Your task to perform on an android device: open app "Microsoft Authenticator" Image 0: 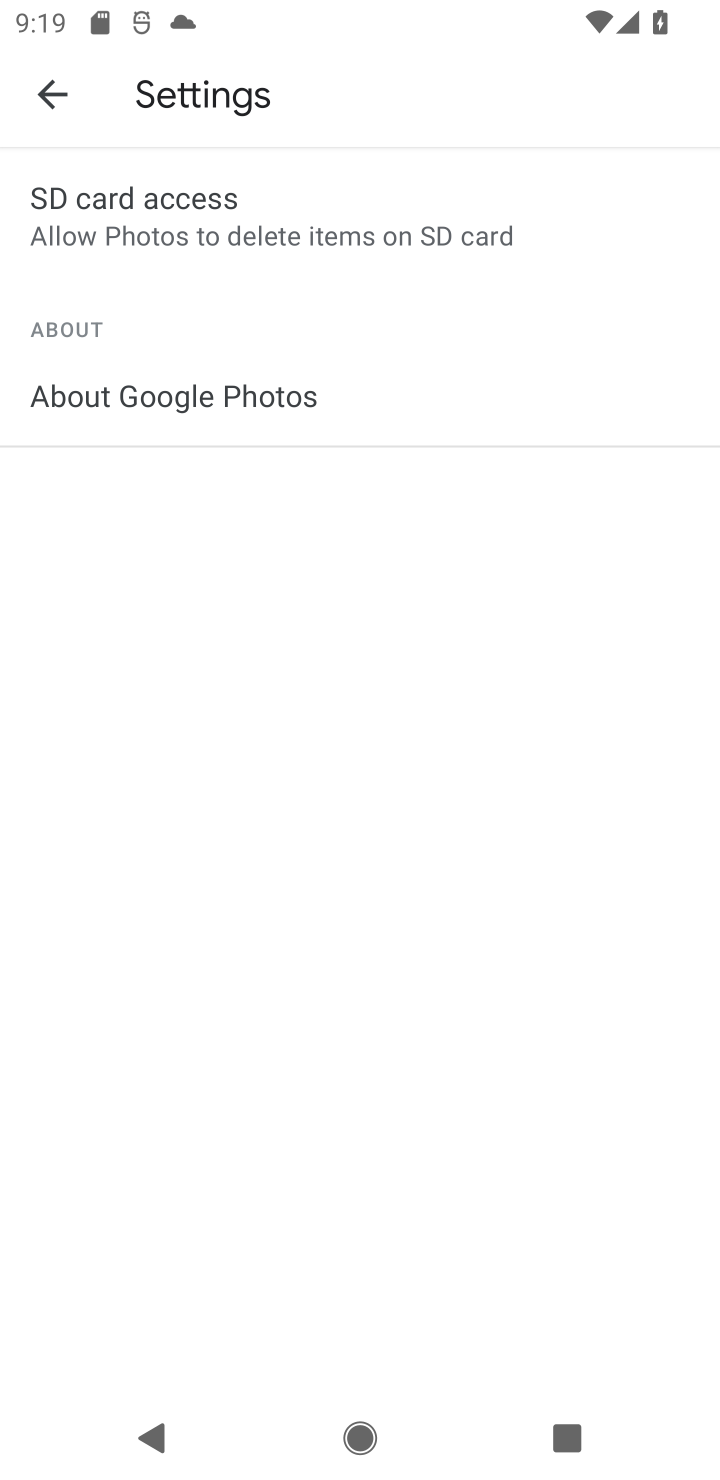
Step 0: press home button
Your task to perform on an android device: open app "Microsoft Authenticator" Image 1: 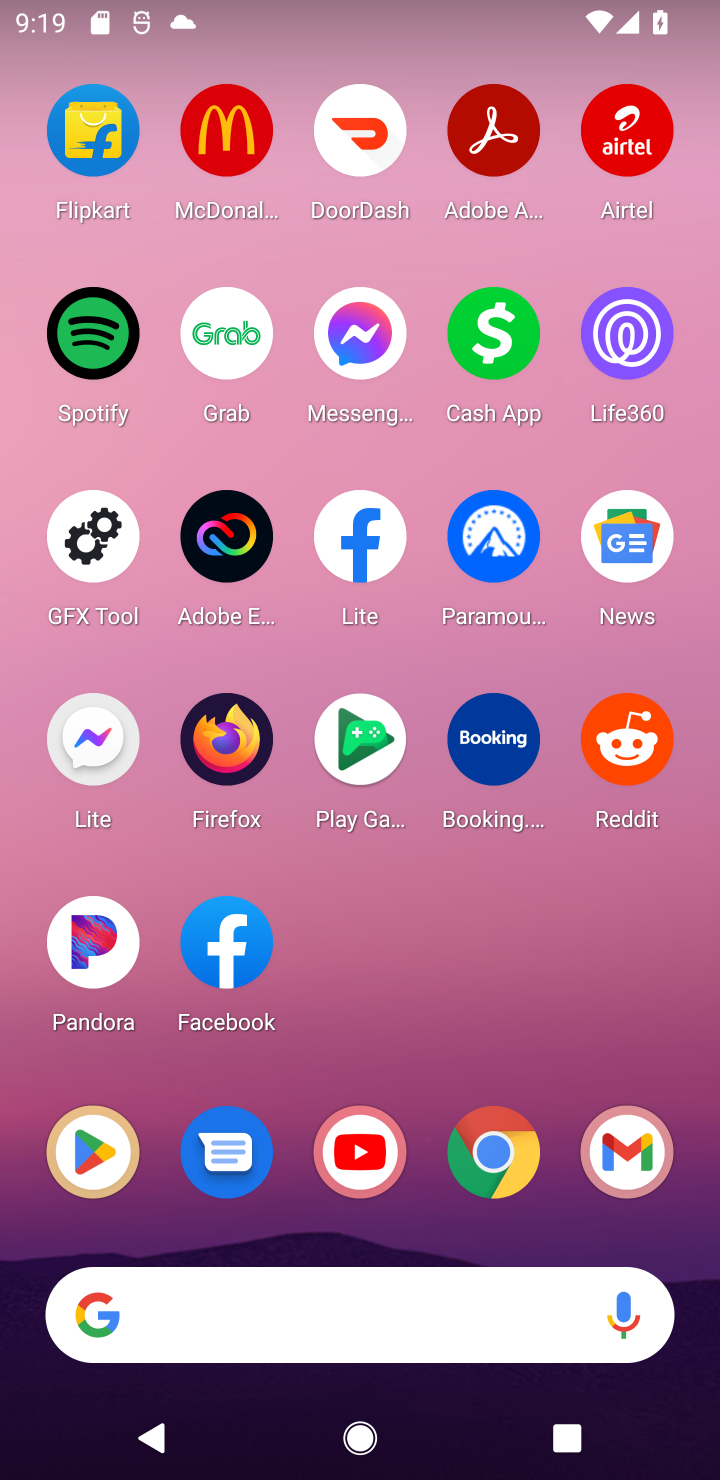
Step 1: drag from (544, 1051) to (438, 1149)
Your task to perform on an android device: open app "Microsoft Authenticator" Image 2: 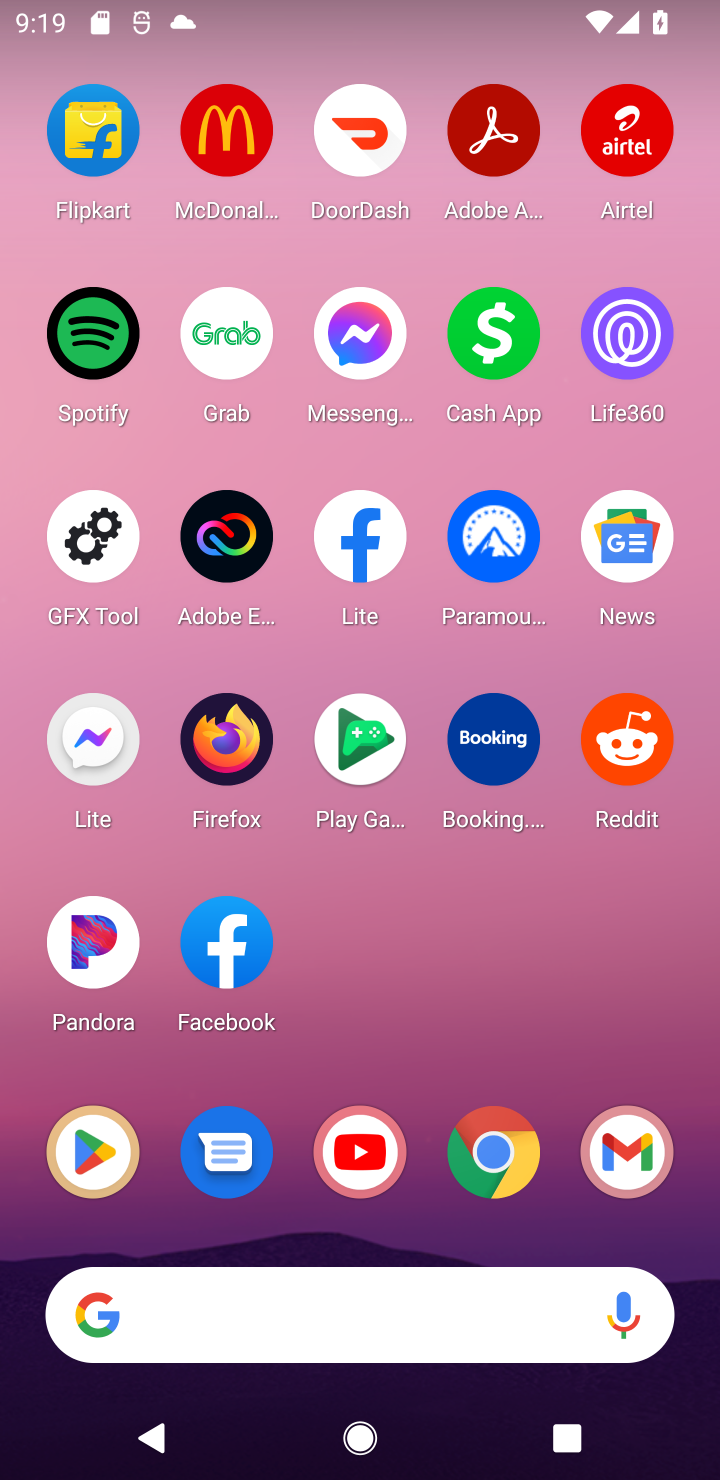
Step 2: click (54, 1139)
Your task to perform on an android device: open app "Microsoft Authenticator" Image 3: 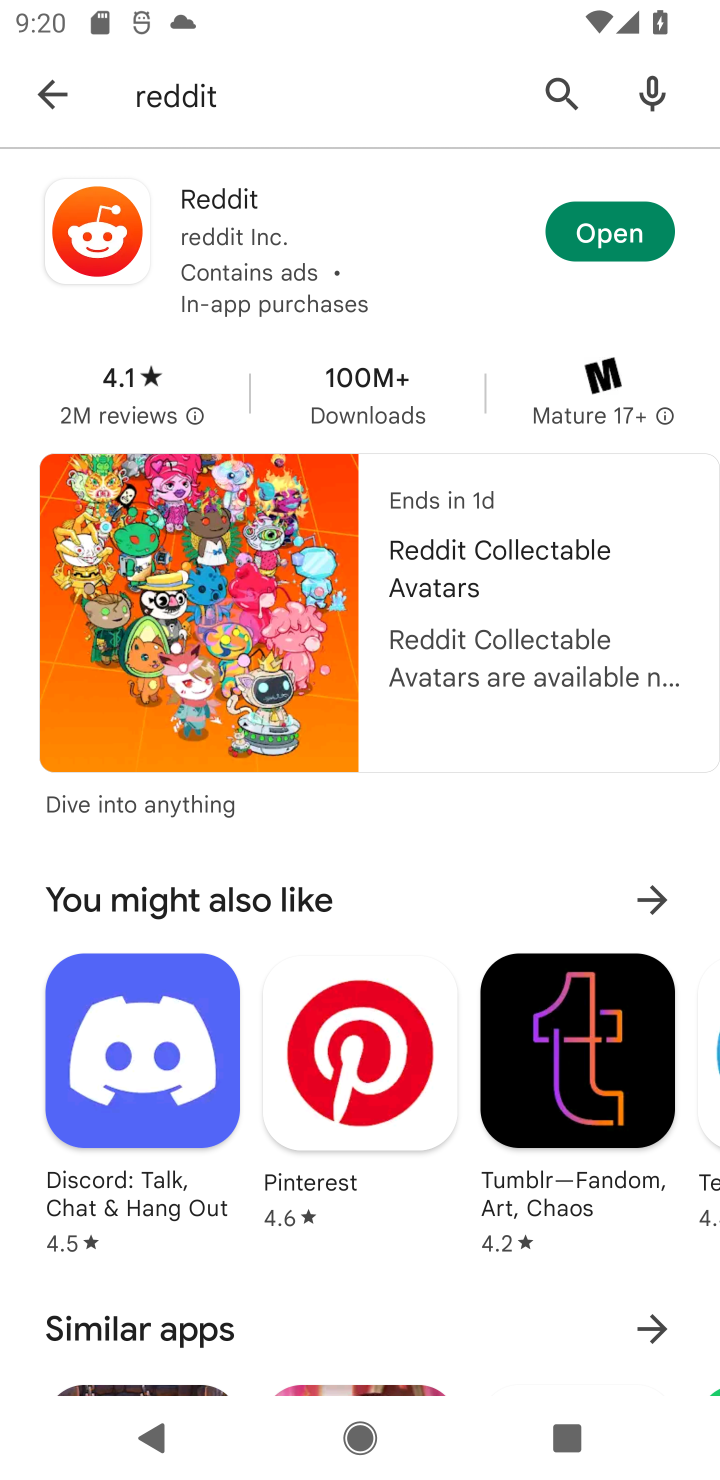
Step 3: click (45, 105)
Your task to perform on an android device: open app "Microsoft Authenticator" Image 4: 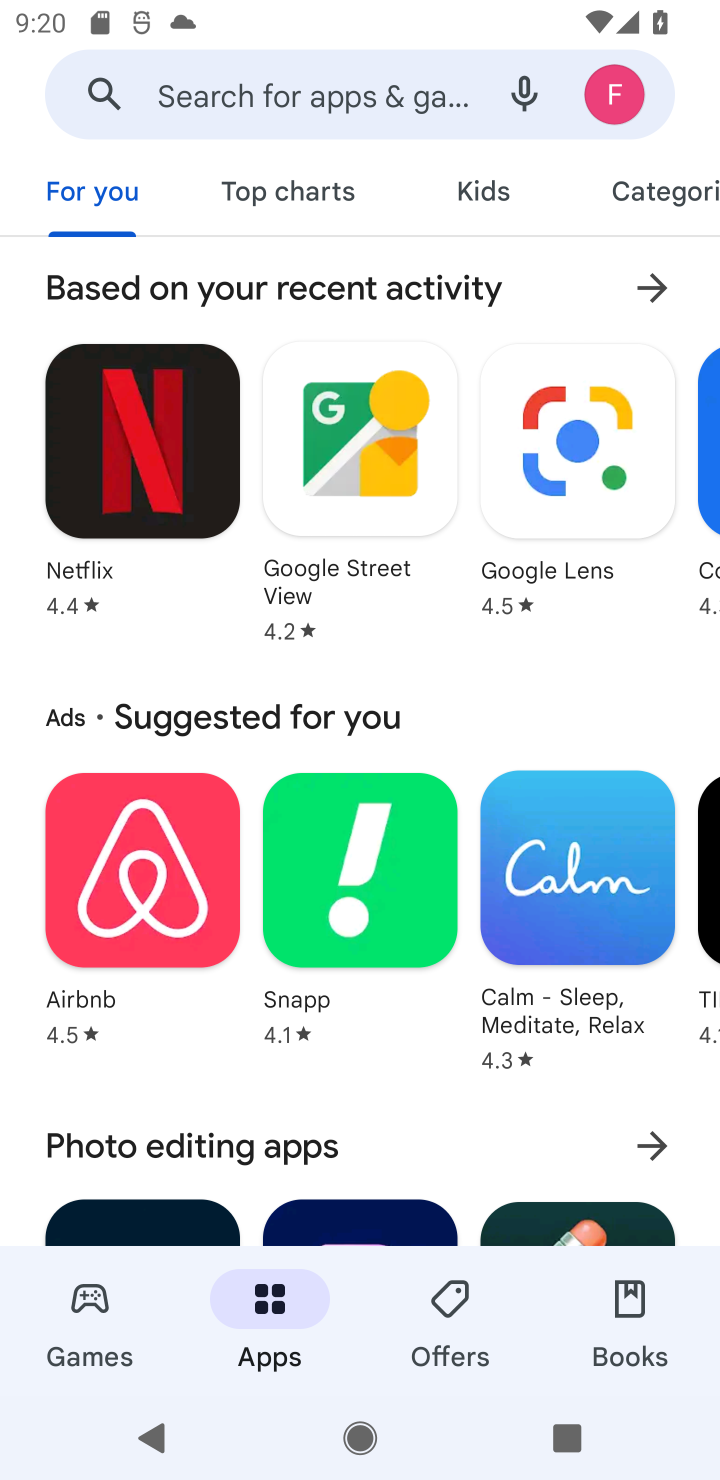
Step 4: click (328, 95)
Your task to perform on an android device: open app "Microsoft Authenticator" Image 5: 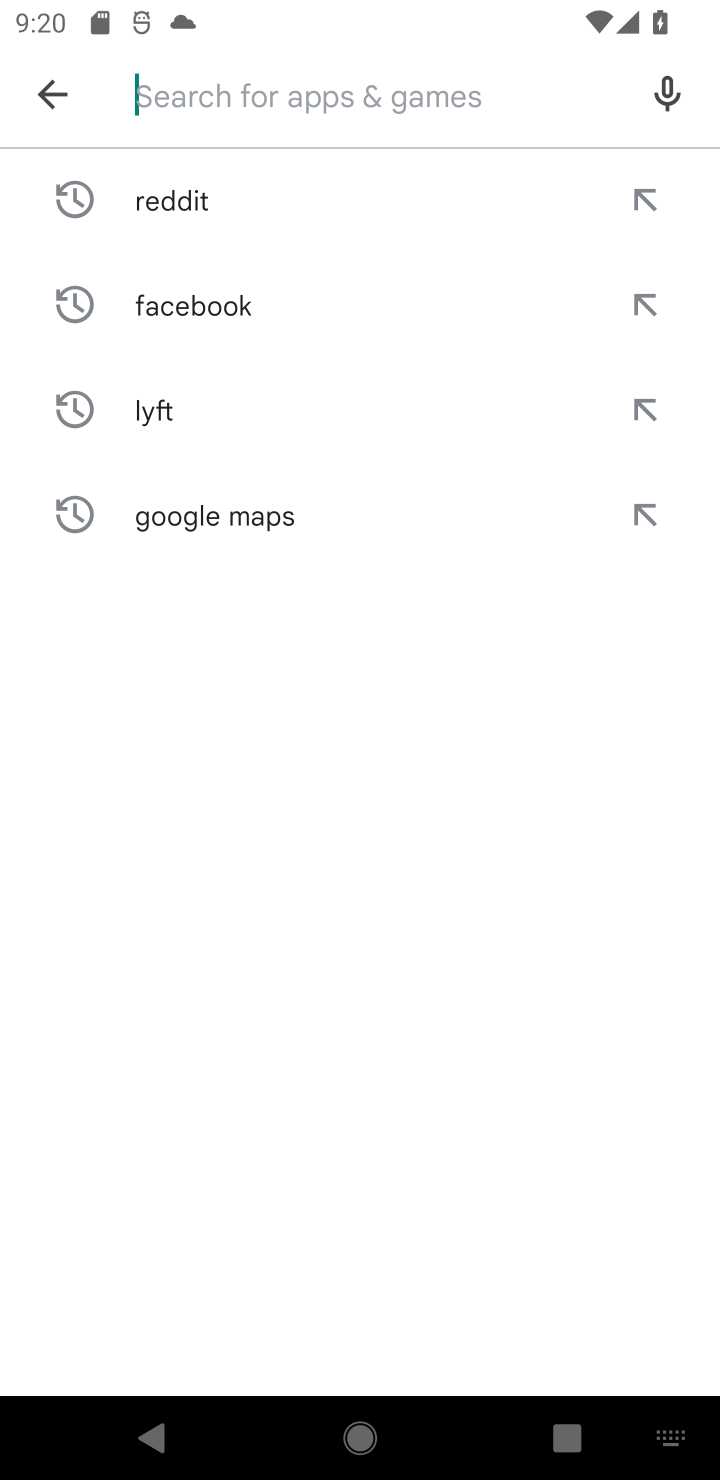
Step 5: type "Microsoft Authenticator"
Your task to perform on an android device: open app "Microsoft Authenticator" Image 6: 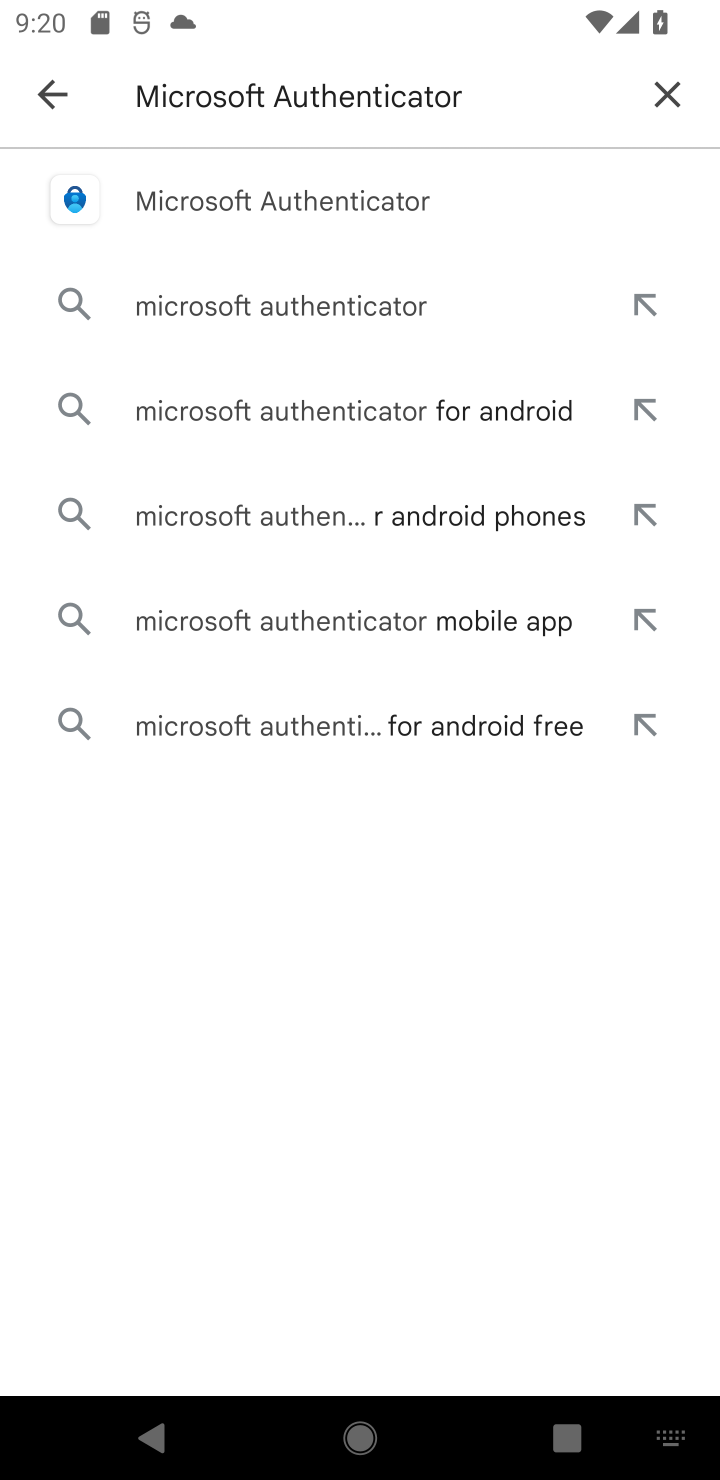
Step 6: click (325, 198)
Your task to perform on an android device: open app "Microsoft Authenticator" Image 7: 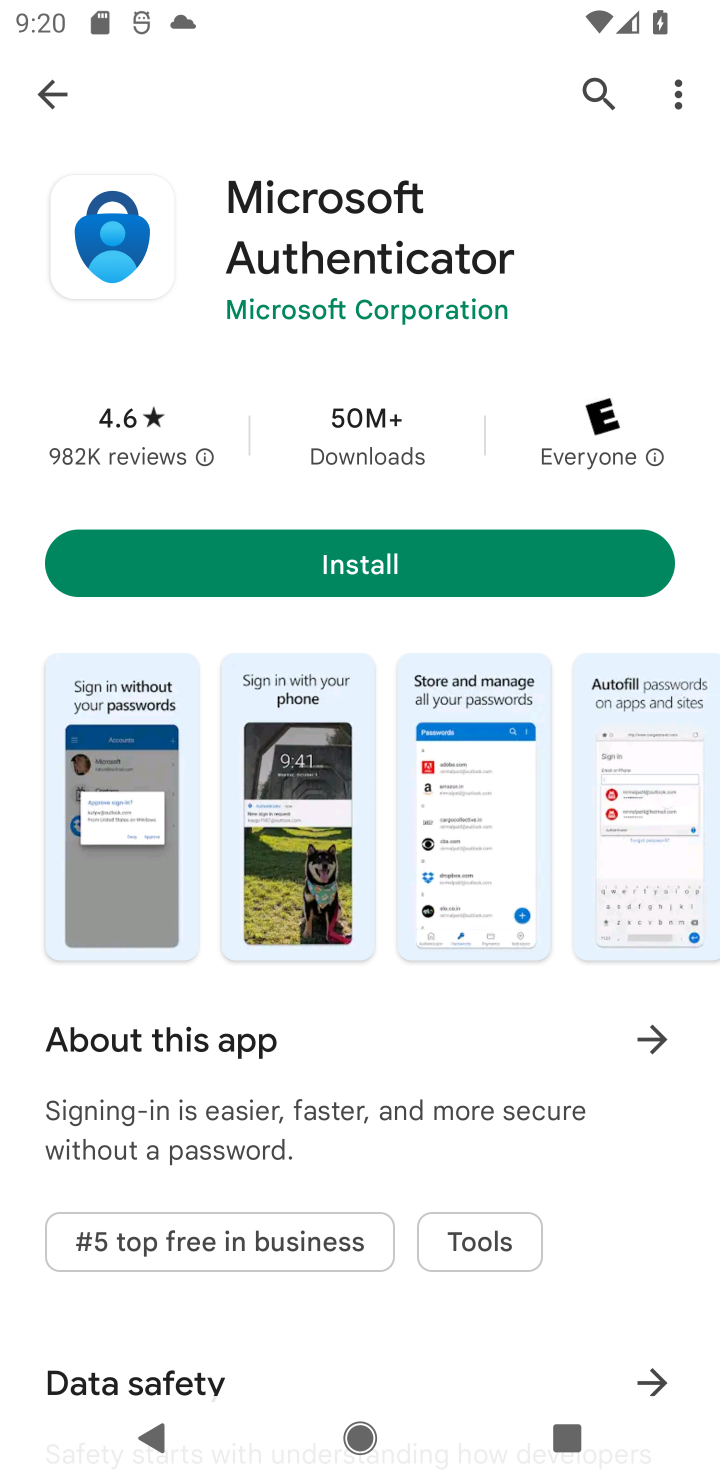
Step 7: click (365, 548)
Your task to perform on an android device: open app "Microsoft Authenticator" Image 8: 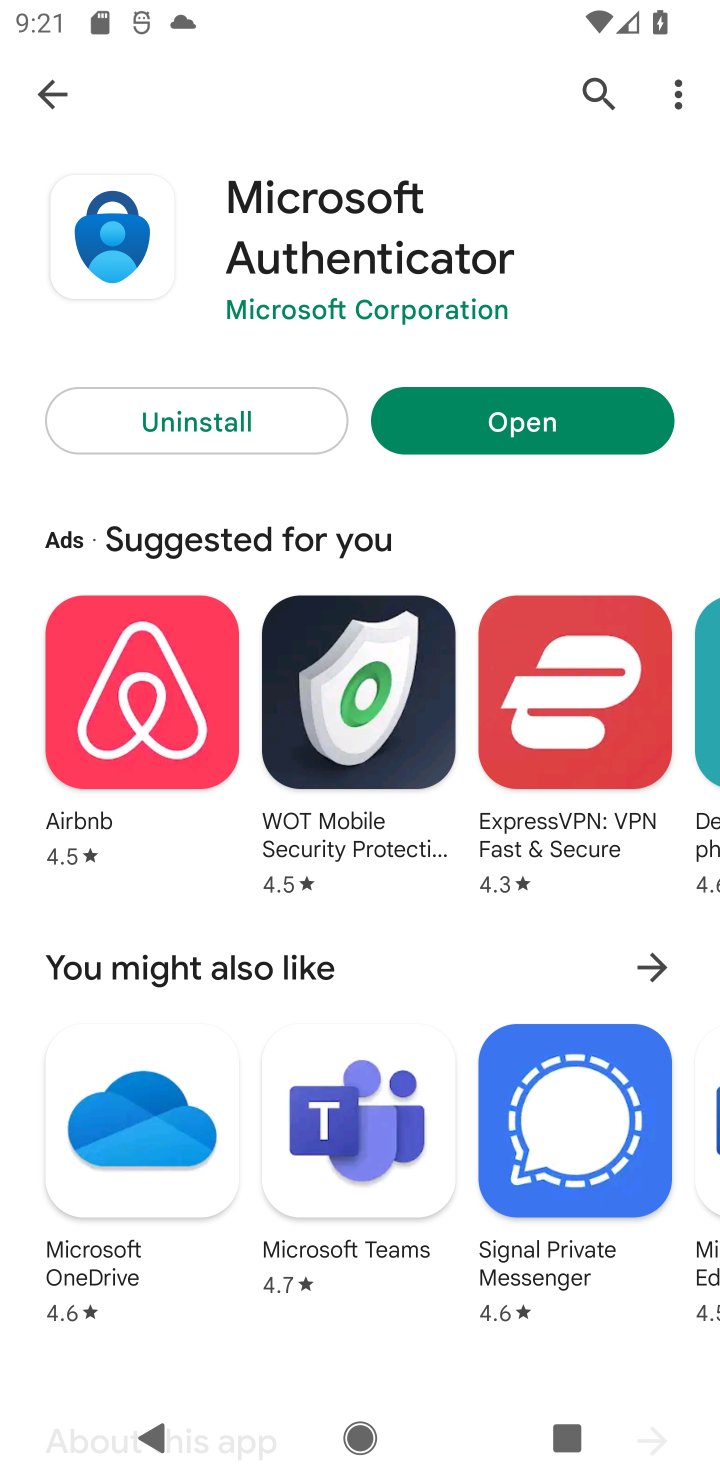
Step 8: click (639, 433)
Your task to perform on an android device: open app "Microsoft Authenticator" Image 9: 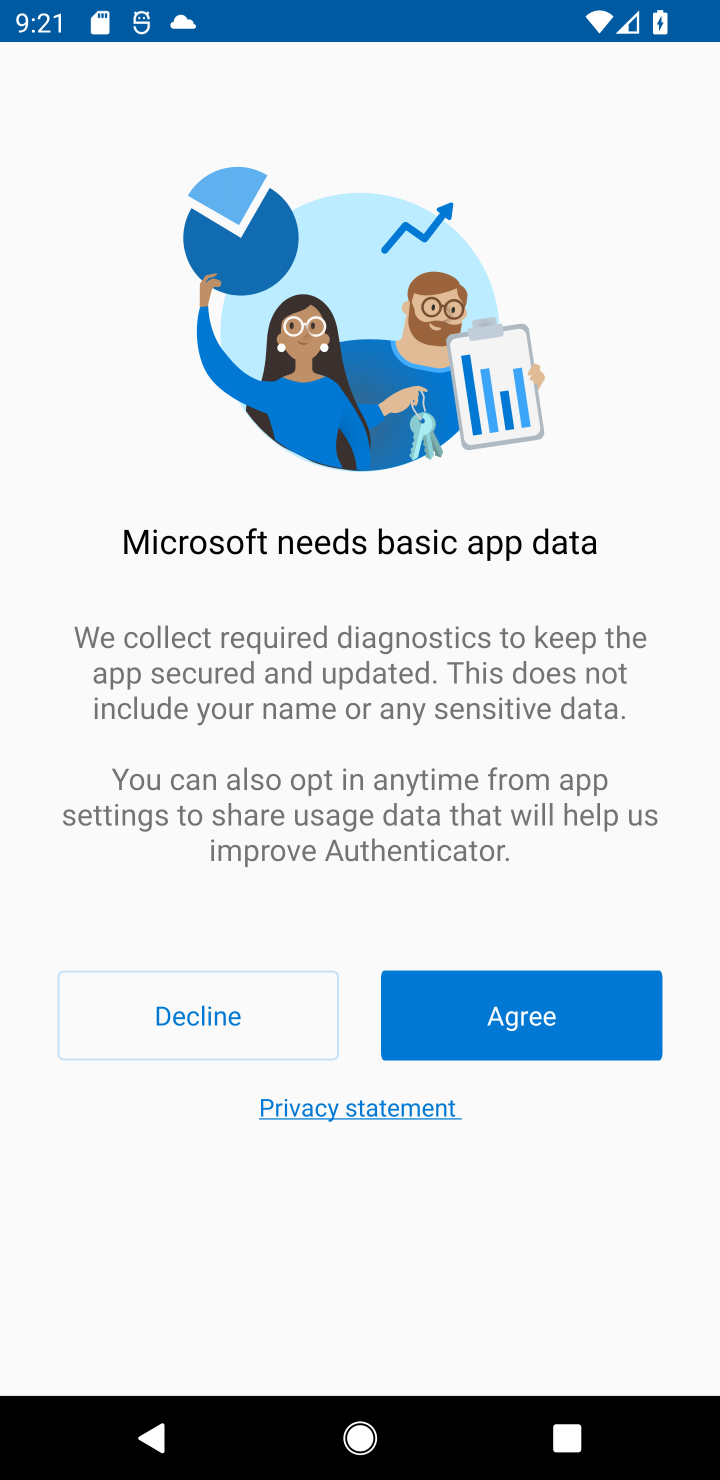
Step 9: task complete